Your task to perform on an android device: Go to Maps Image 0: 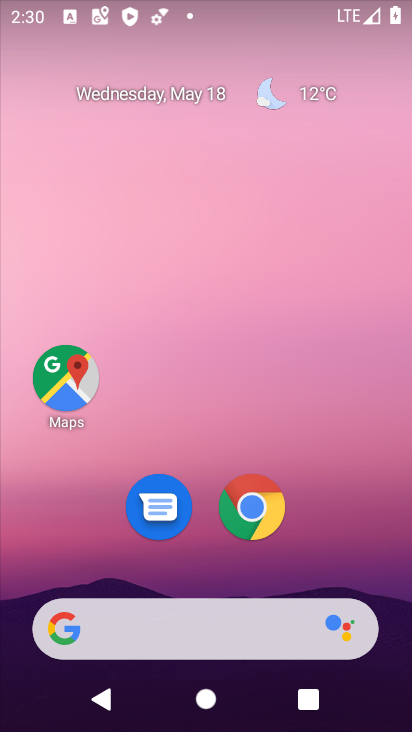
Step 0: click (64, 380)
Your task to perform on an android device: Go to Maps Image 1: 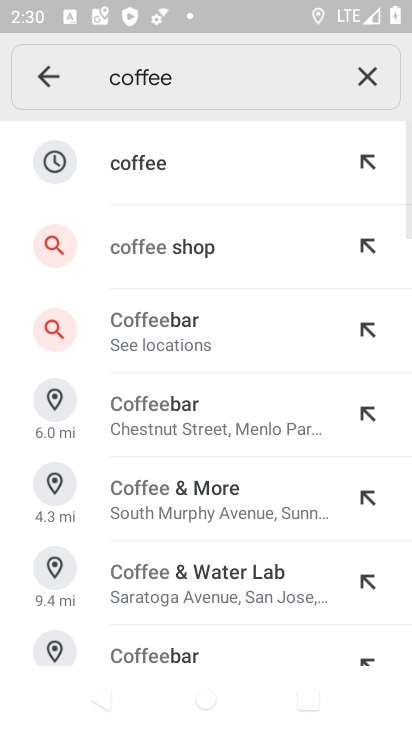
Step 1: click (365, 74)
Your task to perform on an android device: Go to Maps Image 2: 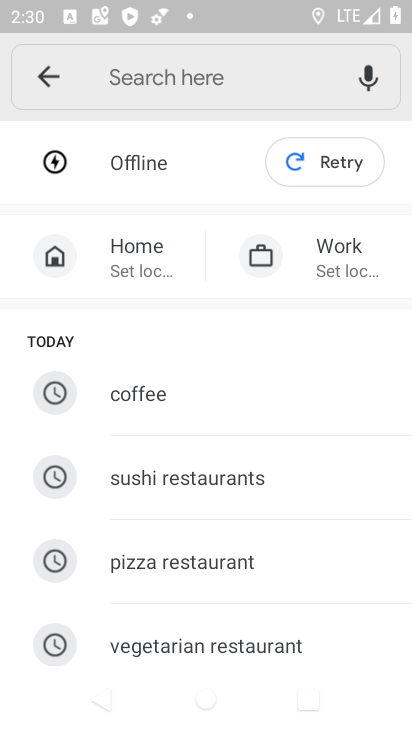
Step 2: task complete